Your task to perform on an android device: Search for Italian restaurants on Maps Image 0: 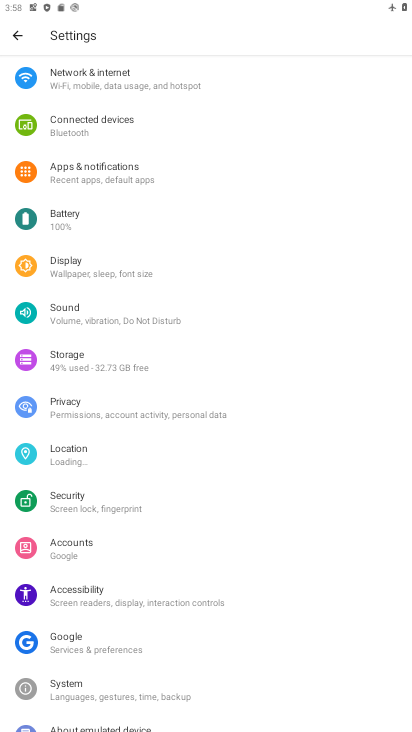
Step 0: press home button
Your task to perform on an android device: Search for Italian restaurants on Maps Image 1: 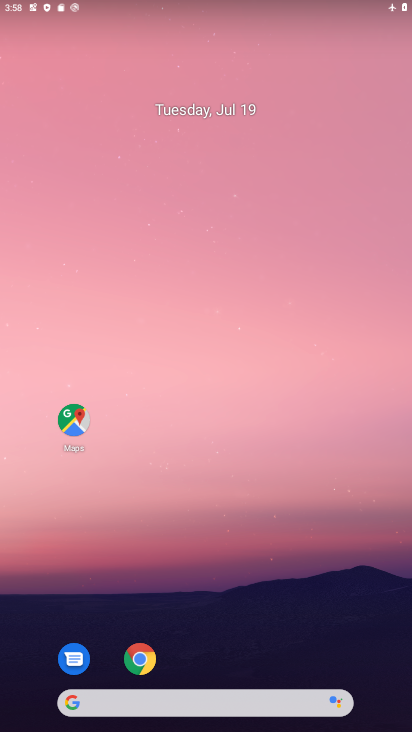
Step 1: drag from (322, 442) to (333, 11)
Your task to perform on an android device: Search for Italian restaurants on Maps Image 2: 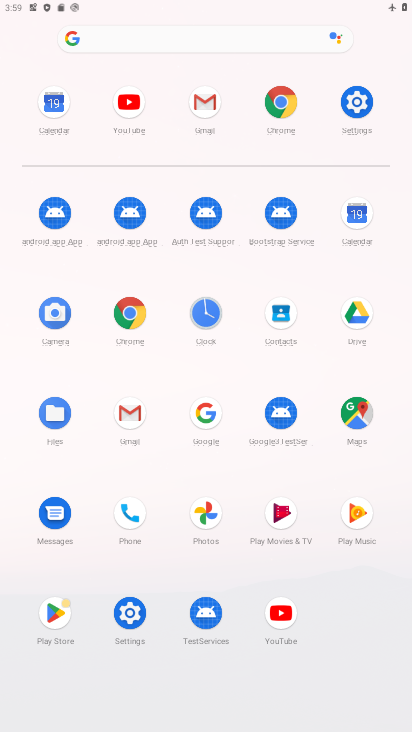
Step 2: click (361, 418)
Your task to perform on an android device: Search for Italian restaurants on Maps Image 3: 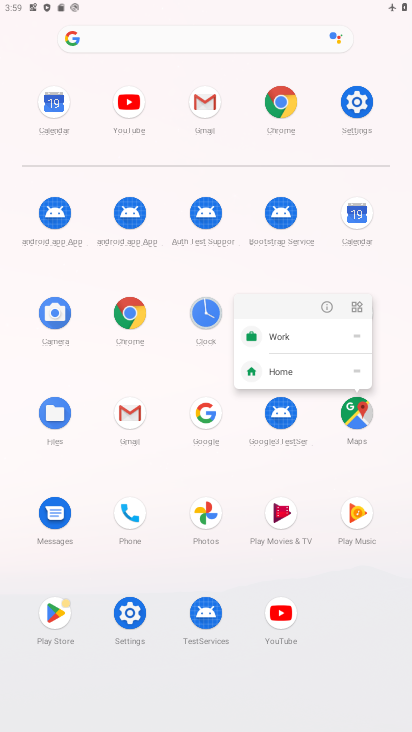
Step 3: click (361, 417)
Your task to perform on an android device: Search for Italian restaurants on Maps Image 4: 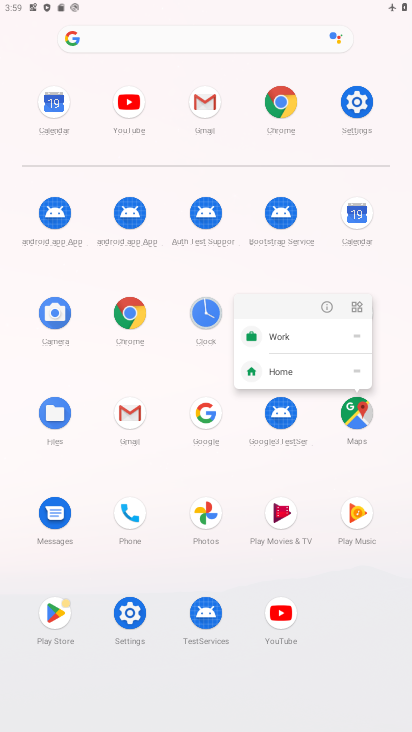
Step 4: click (361, 416)
Your task to perform on an android device: Search for Italian restaurants on Maps Image 5: 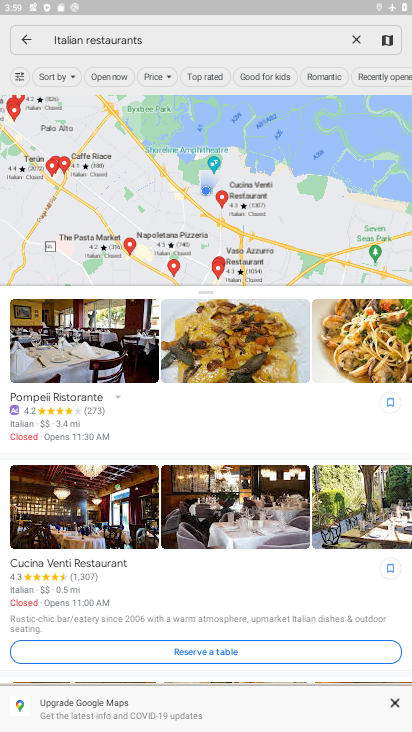
Step 5: task complete